Your task to perform on an android device: turn on the 12-hour format for clock Image 0: 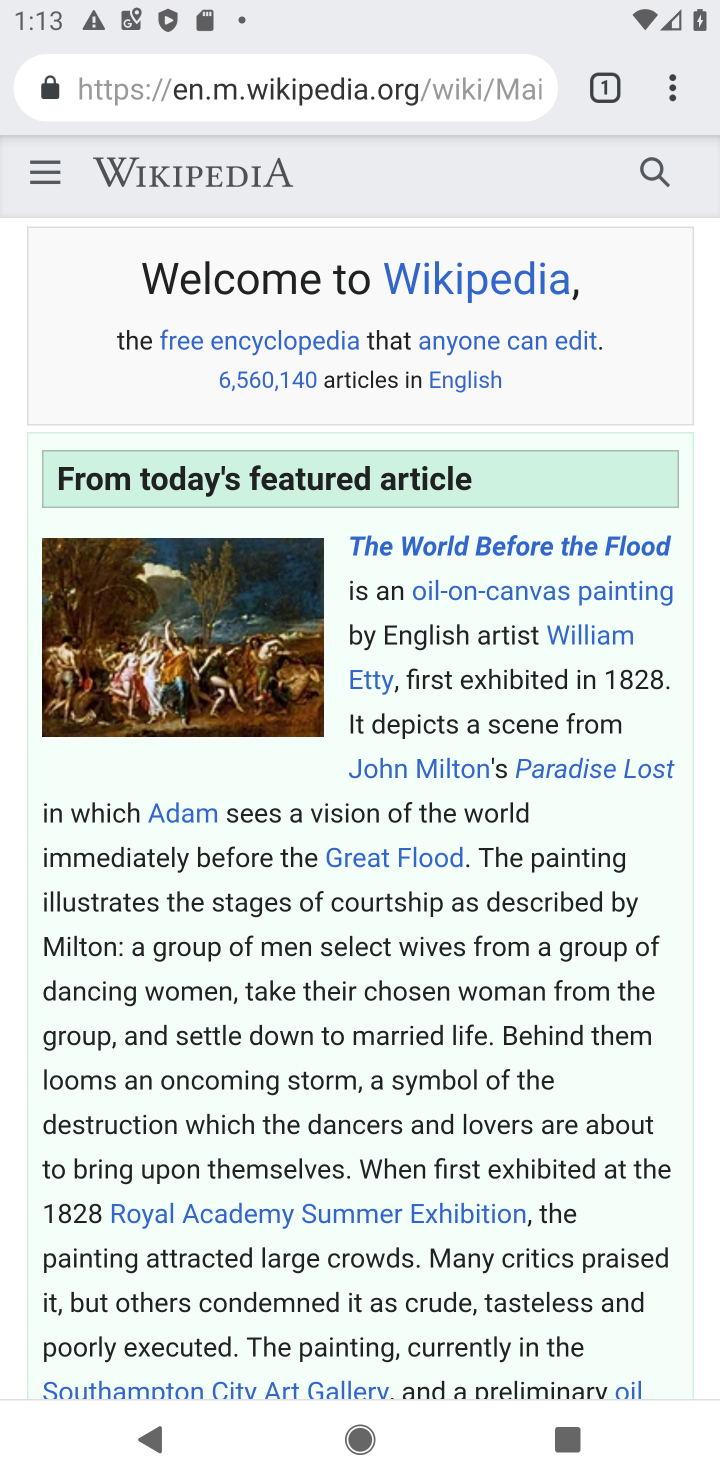
Step 0: press home button
Your task to perform on an android device: turn on the 12-hour format for clock Image 1: 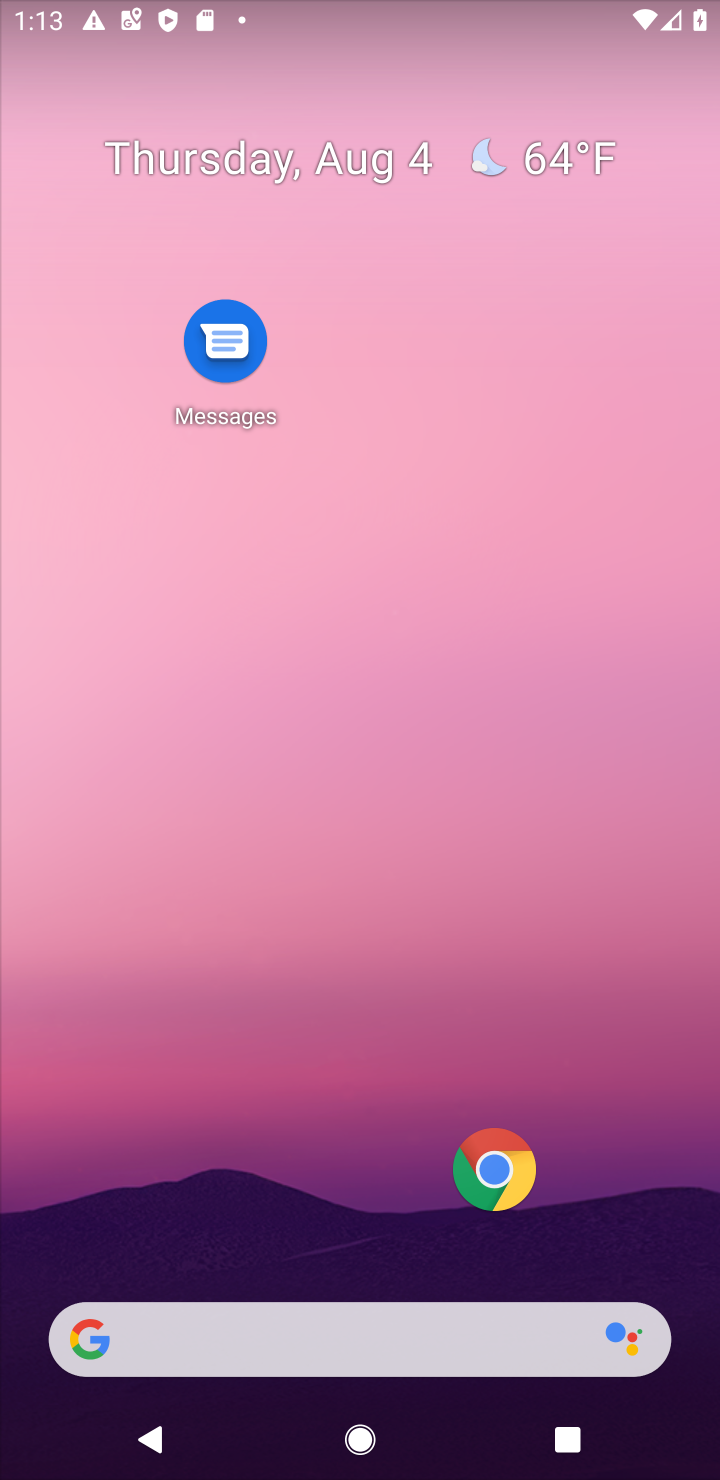
Step 1: drag from (338, 951) to (392, 74)
Your task to perform on an android device: turn on the 12-hour format for clock Image 2: 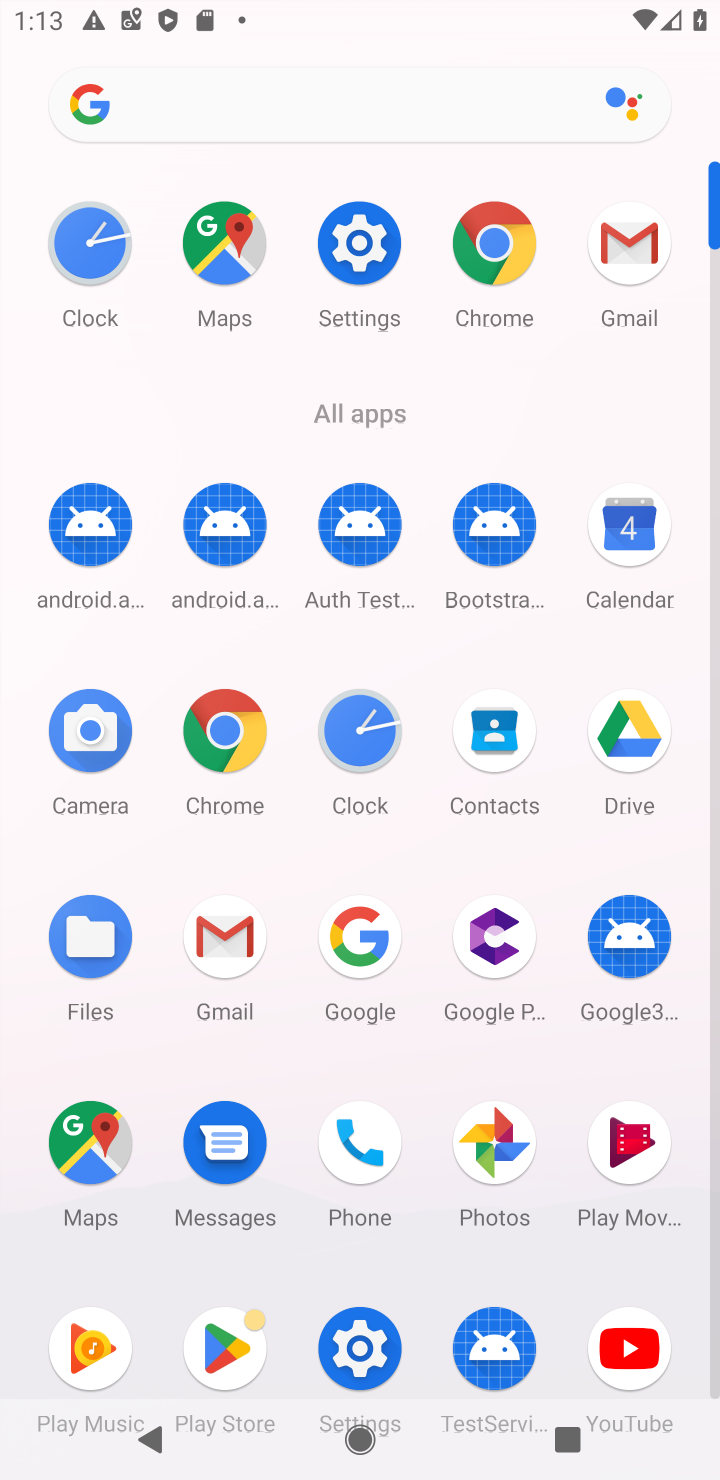
Step 2: click (371, 1331)
Your task to perform on an android device: turn on the 12-hour format for clock Image 3: 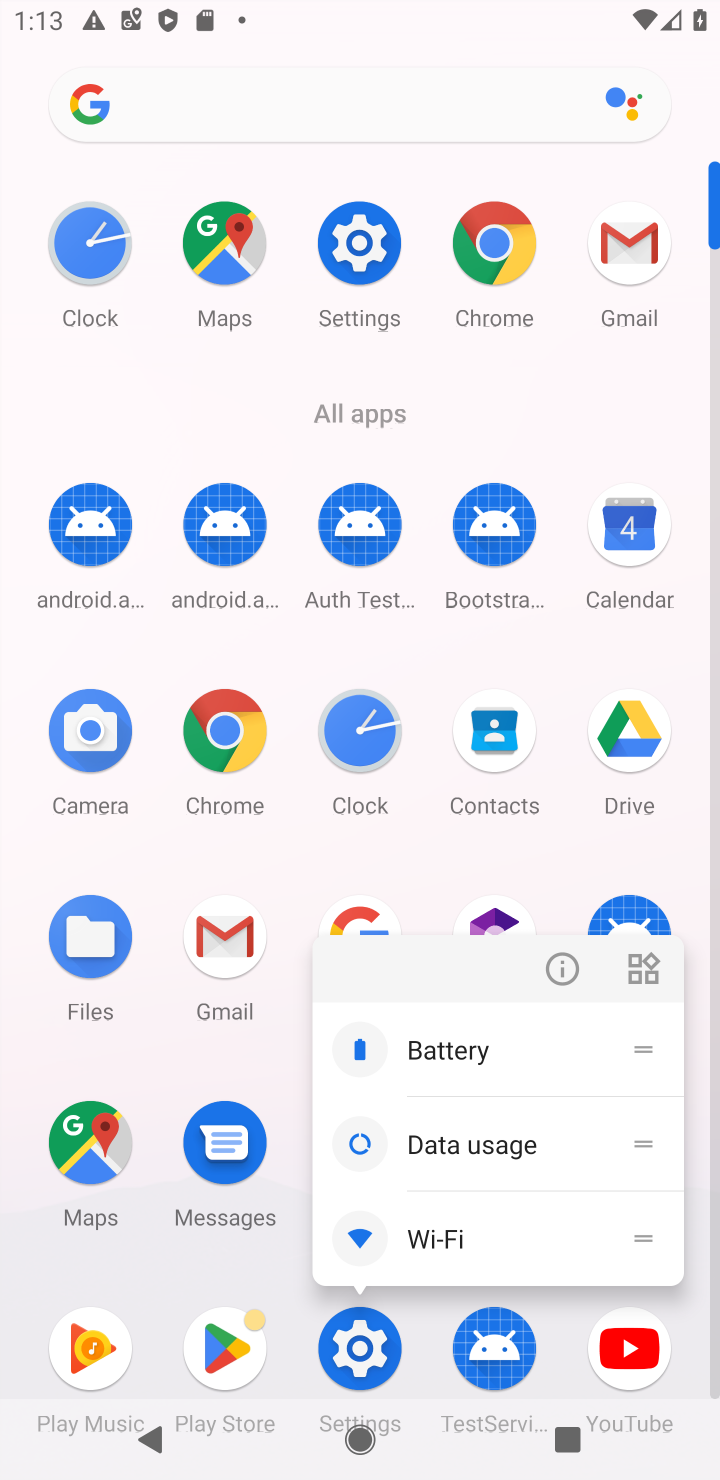
Step 3: click (330, 1364)
Your task to perform on an android device: turn on the 12-hour format for clock Image 4: 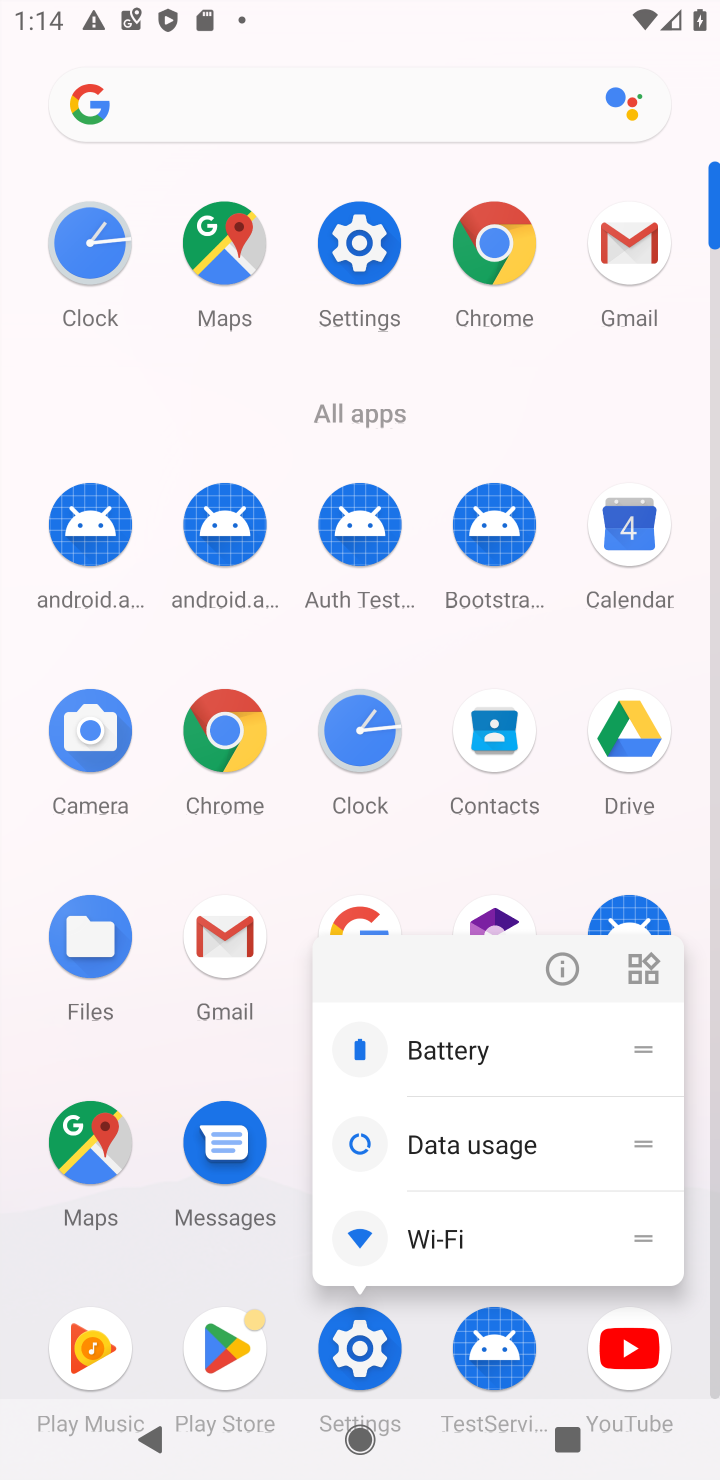
Step 4: click (346, 1348)
Your task to perform on an android device: turn on the 12-hour format for clock Image 5: 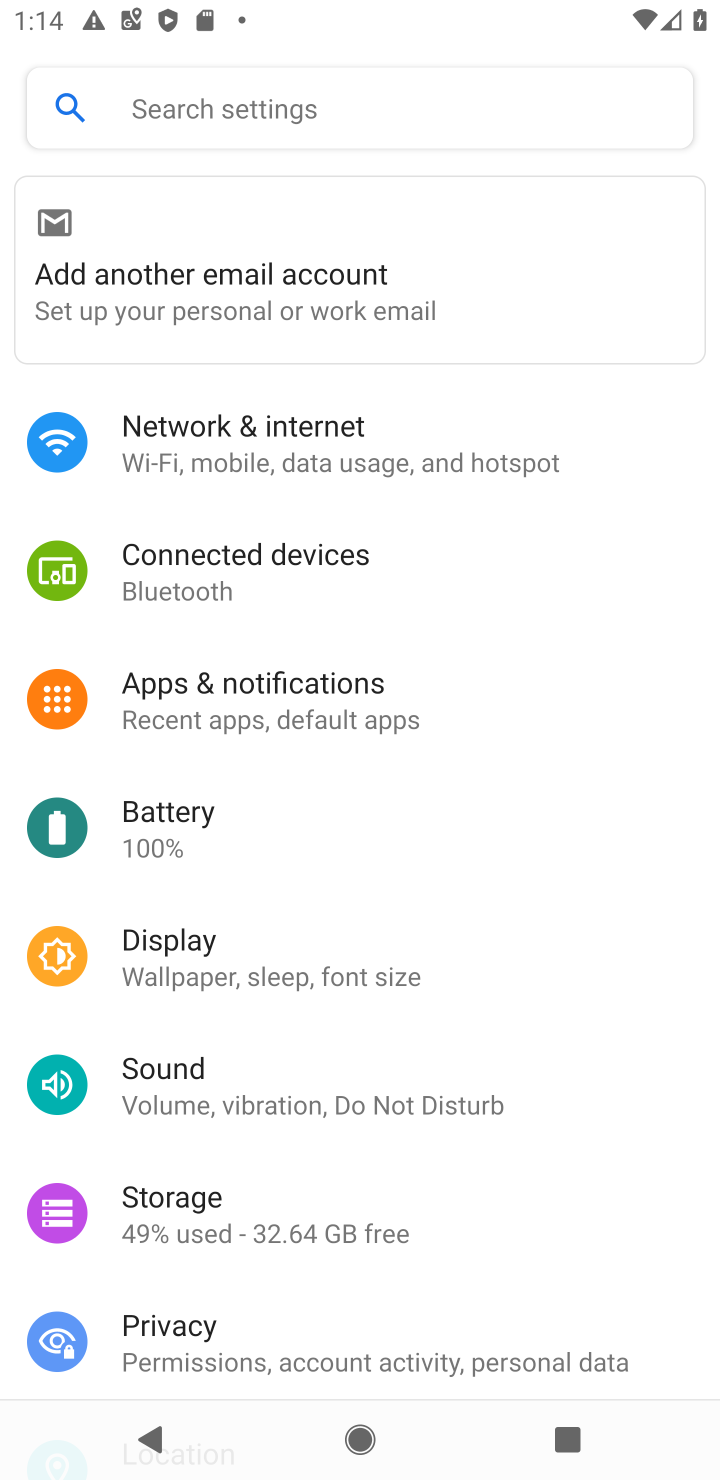
Step 5: drag from (399, 1303) to (365, 698)
Your task to perform on an android device: turn on the 12-hour format for clock Image 6: 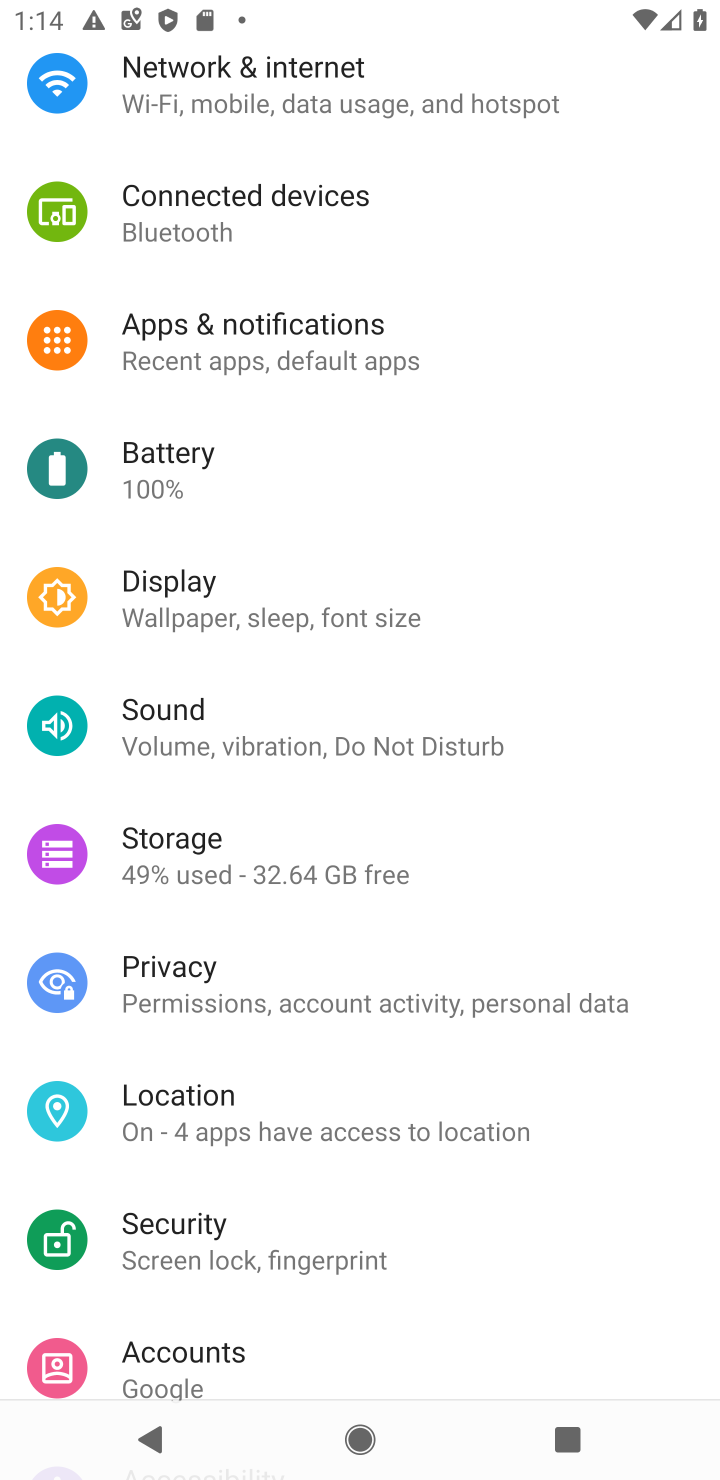
Step 6: drag from (340, 1253) to (378, 792)
Your task to perform on an android device: turn on the 12-hour format for clock Image 7: 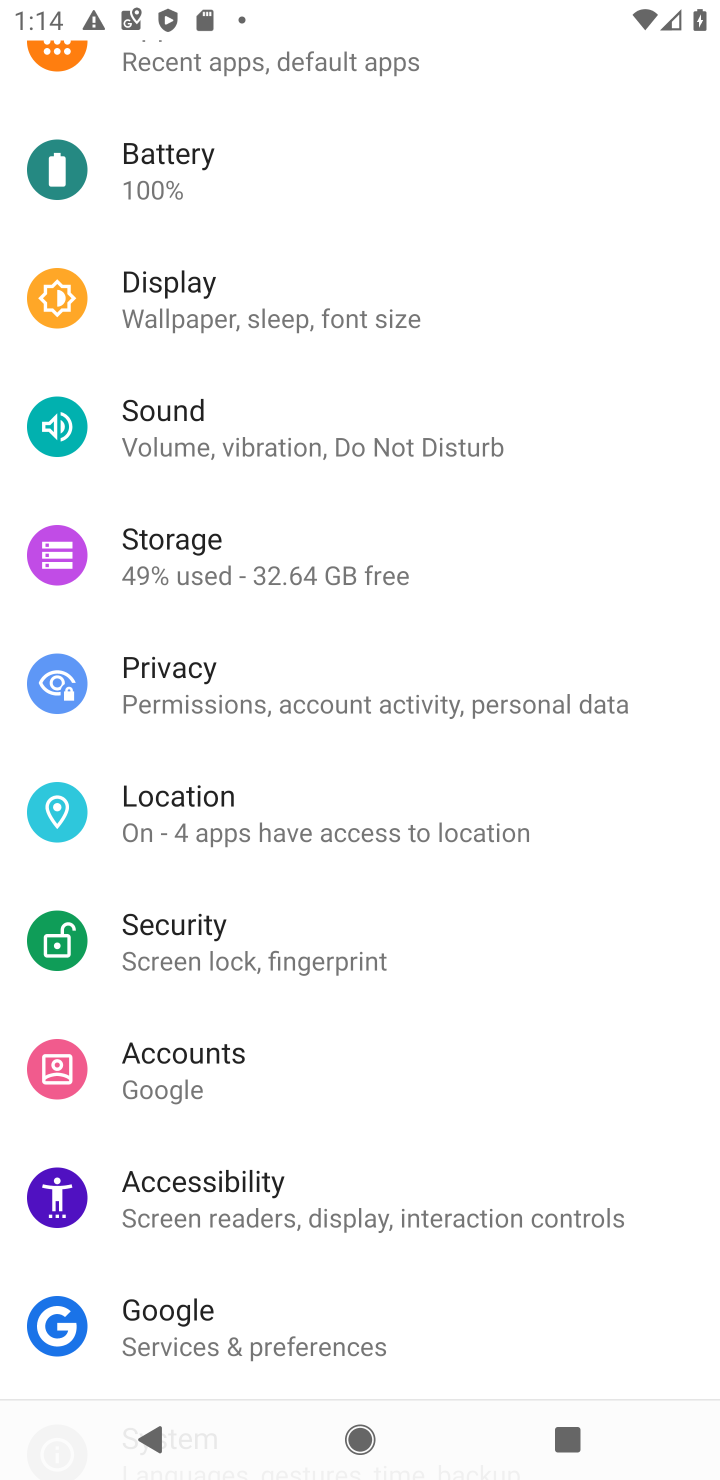
Step 7: drag from (314, 1287) to (360, 816)
Your task to perform on an android device: turn on the 12-hour format for clock Image 8: 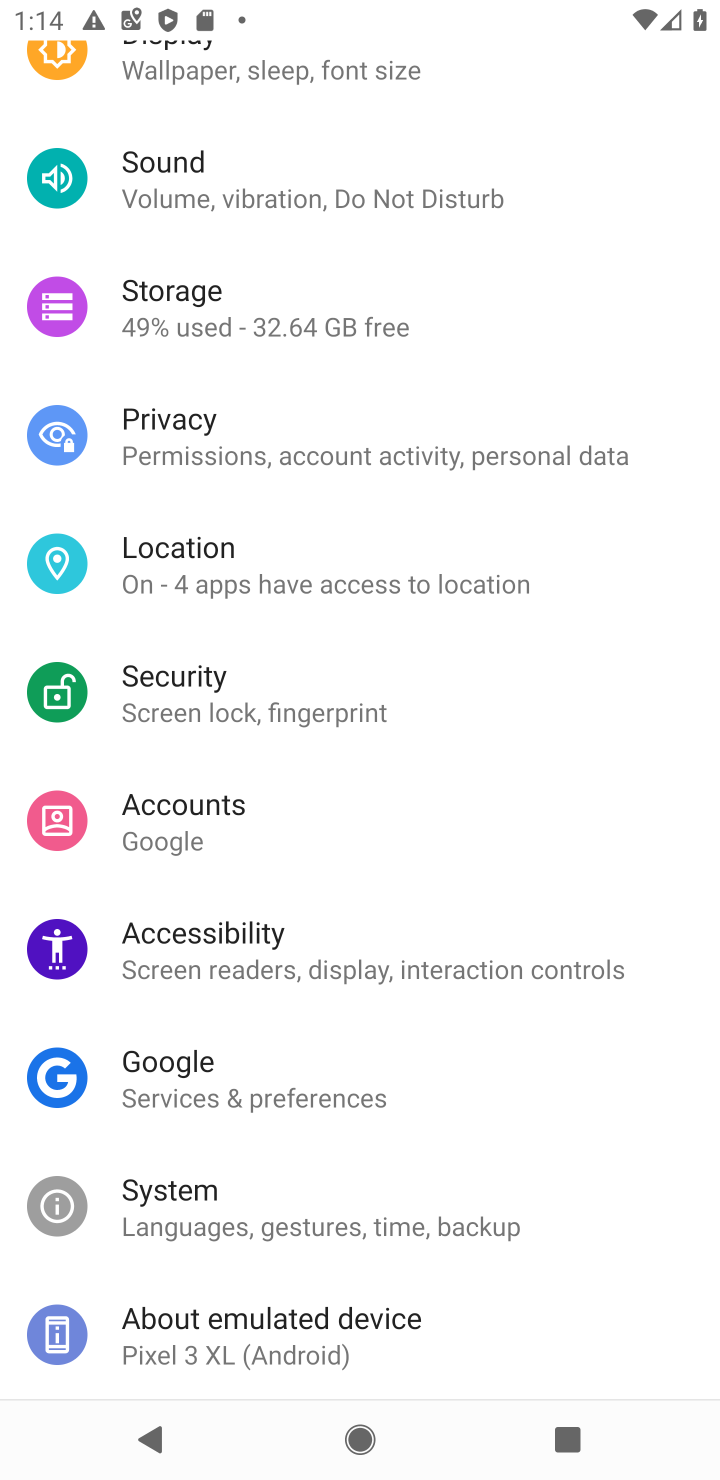
Step 8: click (246, 1216)
Your task to perform on an android device: turn on the 12-hour format for clock Image 9: 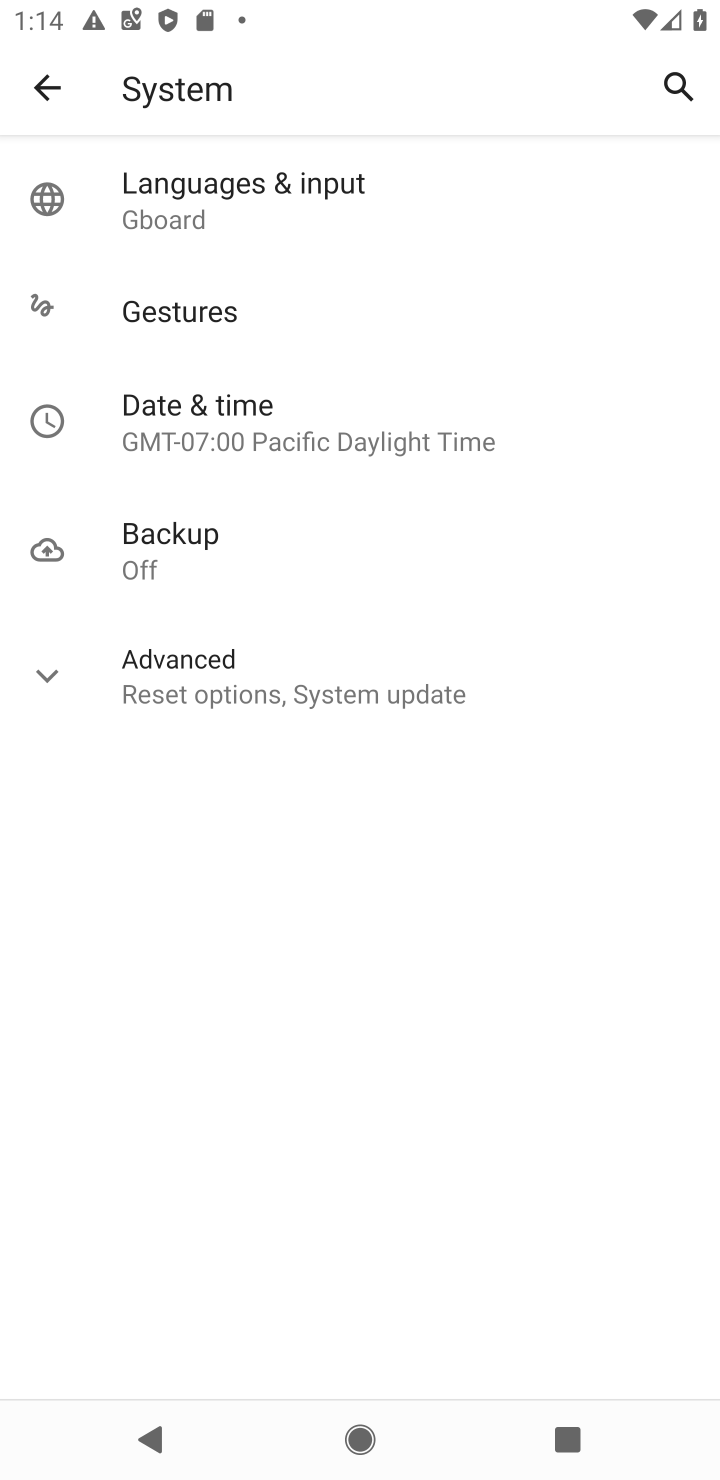
Step 9: click (237, 422)
Your task to perform on an android device: turn on the 12-hour format for clock Image 10: 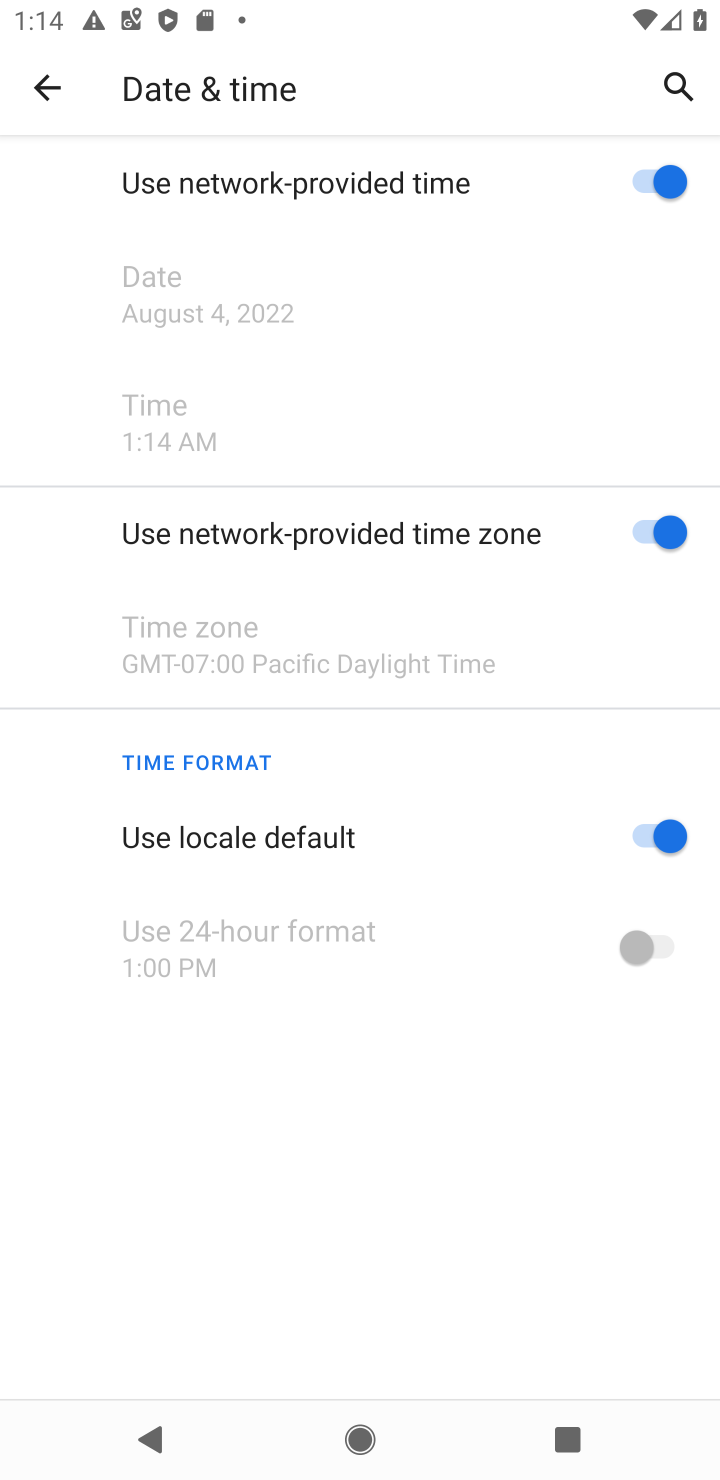
Step 10: task complete